Your task to perform on an android device: turn off improve location accuracy Image 0: 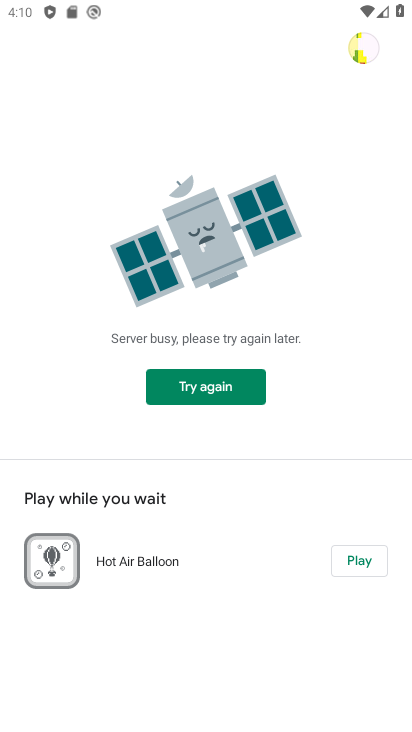
Step 0: press home button
Your task to perform on an android device: turn off improve location accuracy Image 1: 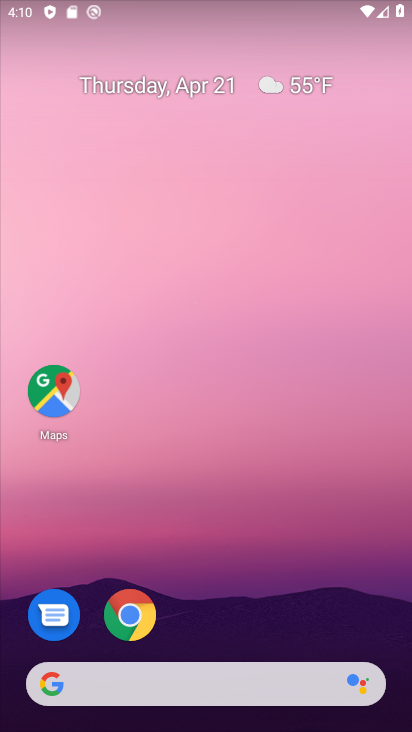
Step 1: drag from (217, 637) to (226, 72)
Your task to perform on an android device: turn off improve location accuracy Image 2: 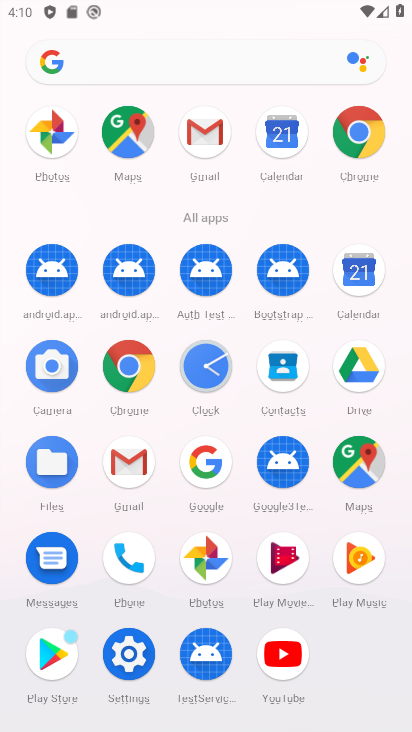
Step 2: click (131, 657)
Your task to perform on an android device: turn off improve location accuracy Image 3: 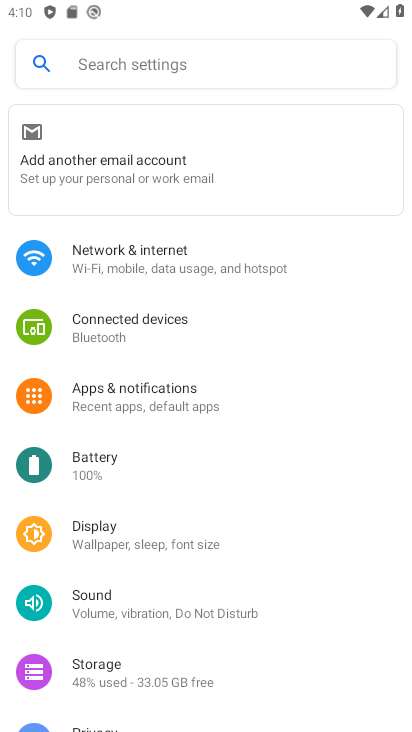
Step 3: drag from (202, 667) to (237, 254)
Your task to perform on an android device: turn off improve location accuracy Image 4: 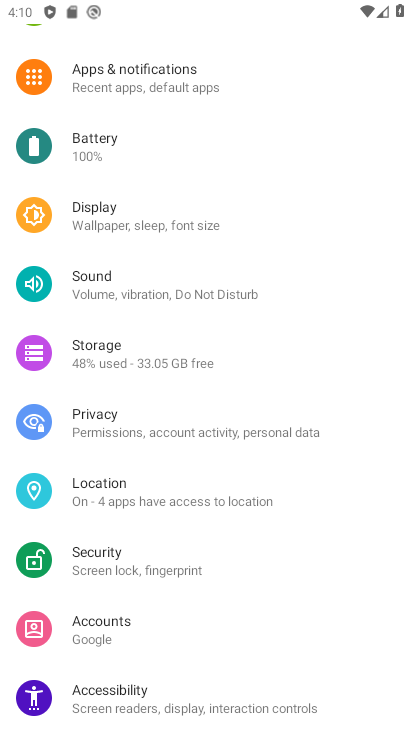
Step 4: click (164, 487)
Your task to perform on an android device: turn off improve location accuracy Image 5: 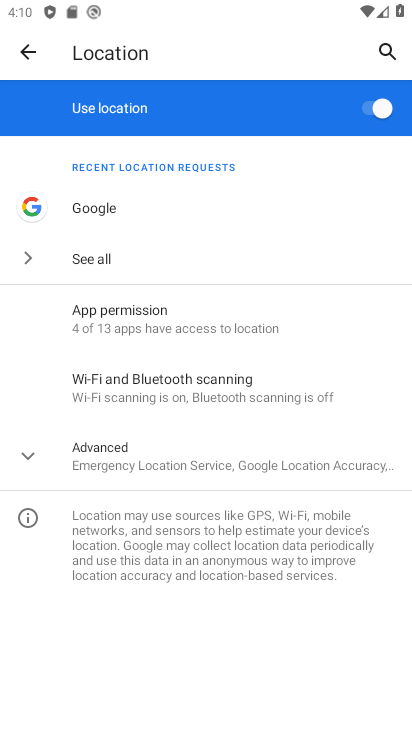
Step 5: click (81, 447)
Your task to perform on an android device: turn off improve location accuracy Image 6: 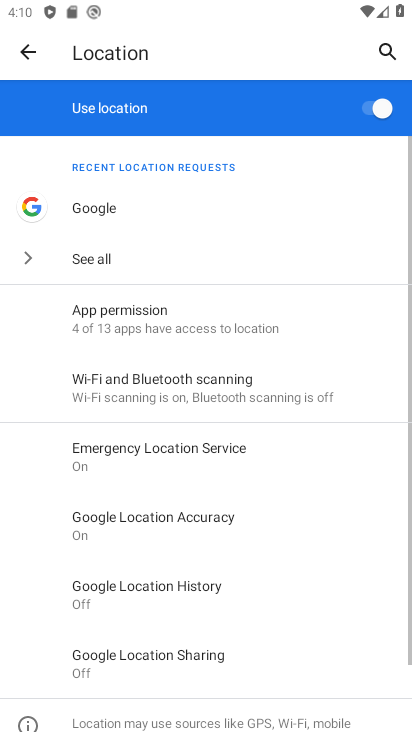
Step 6: drag from (179, 584) to (191, 401)
Your task to perform on an android device: turn off improve location accuracy Image 7: 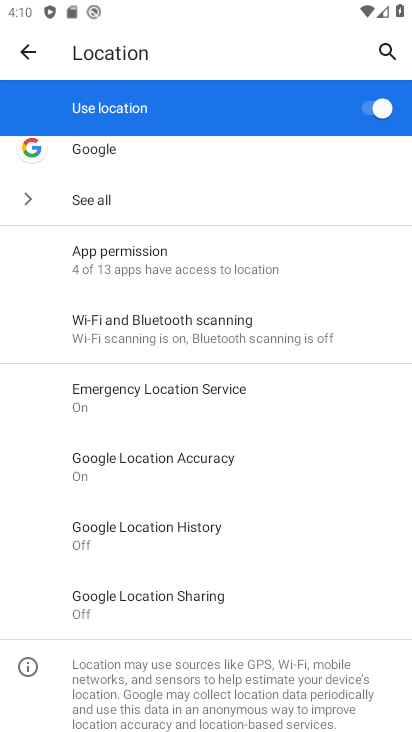
Step 7: click (169, 454)
Your task to perform on an android device: turn off improve location accuracy Image 8: 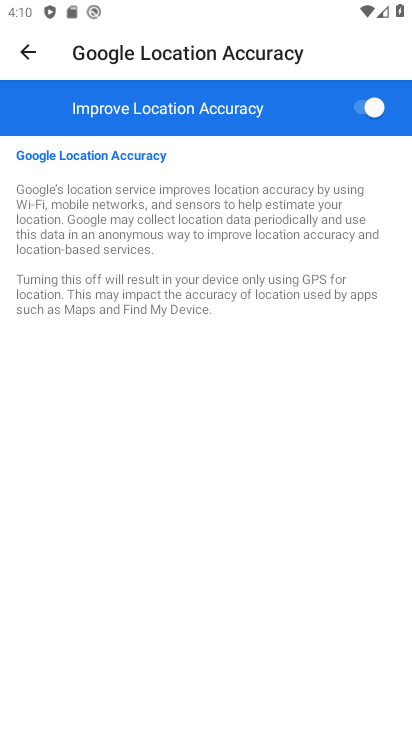
Step 8: click (354, 106)
Your task to perform on an android device: turn off improve location accuracy Image 9: 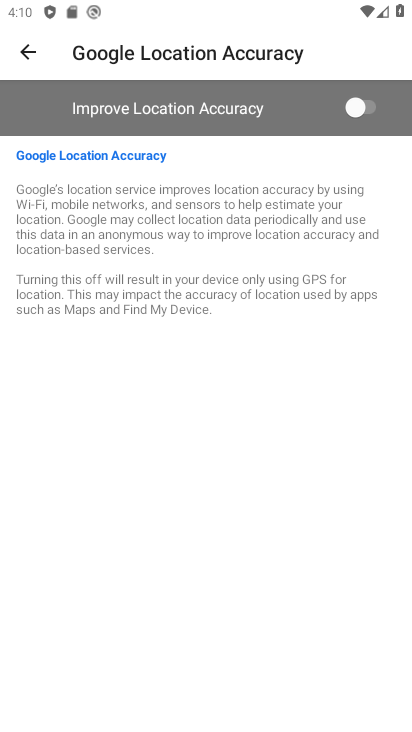
Step 9: task complete